Your task to perform on an android device: all mails in gmail Image 0: 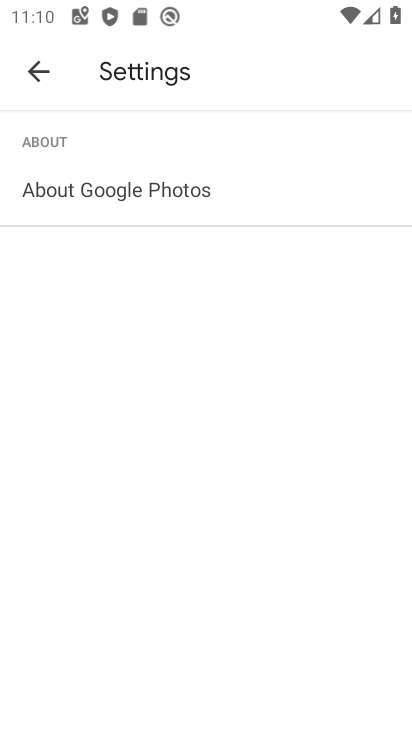
Step 0: press home button
Your task to perform on an android device: all mails in gmail Image 1: 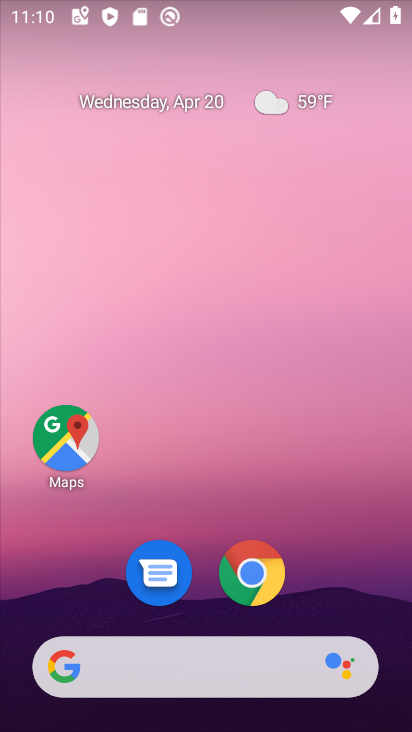
Step 1: drag from (398, 619) to (360, 9)
Your task to perform on an android device: all mails in gmail Image 2: 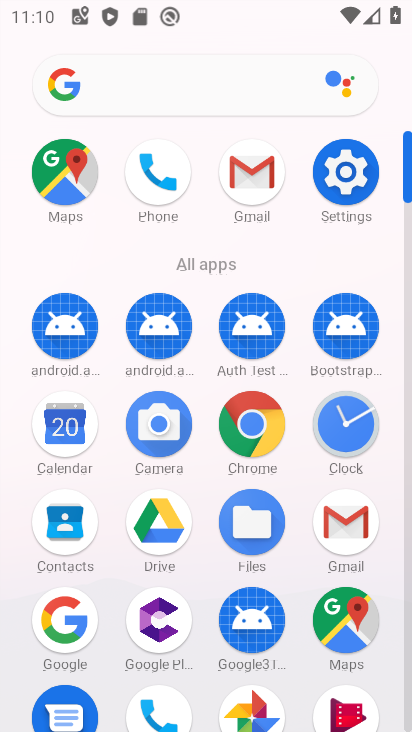
Step 2: click (240, 172)
Your task to perform on an android device: all mails in gmail Image 3: 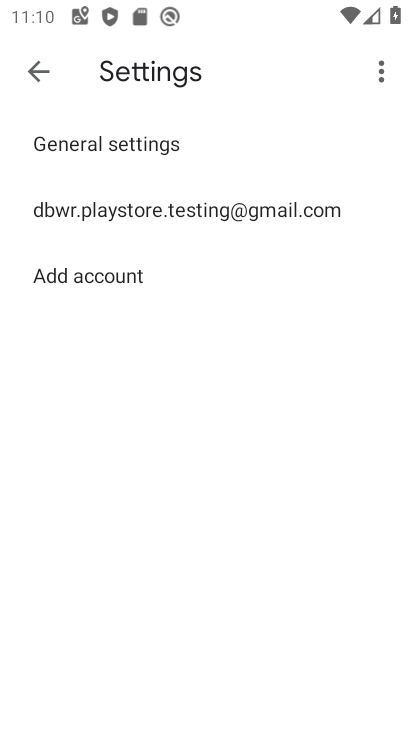
Step 3: click (42, 74)
Your task to perform on an android device: all mails in gmail Image 4: 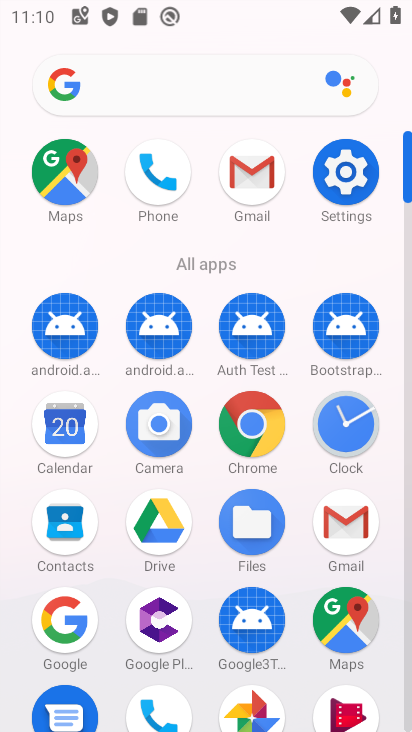
Step 4: click (251, 171)
Your task to perform on an android device: all mails in gmail Image 5: 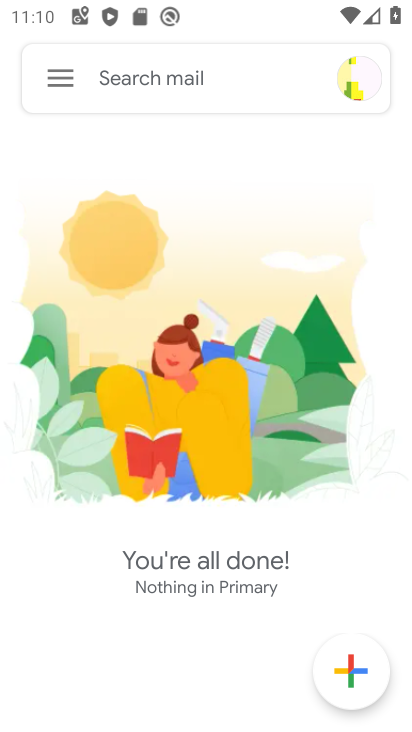
Step 5: click (58, 78)
Your task to perform on an android device: all mails in gmail Image 6: 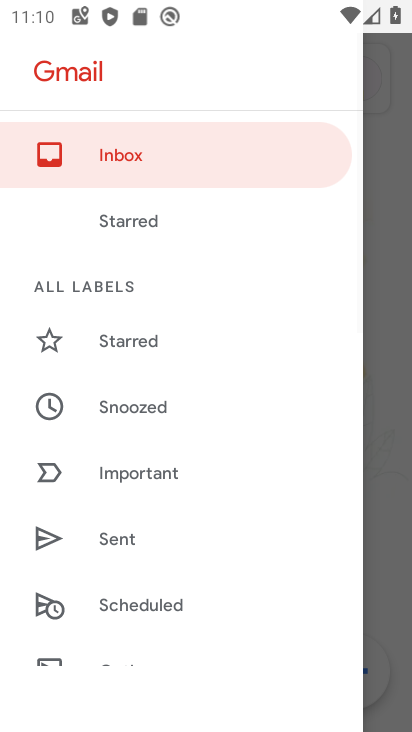
Step 6: drag from (224, 530) to (232, 254)
Your task to perform on an android device: all mails in gmail Image 7: 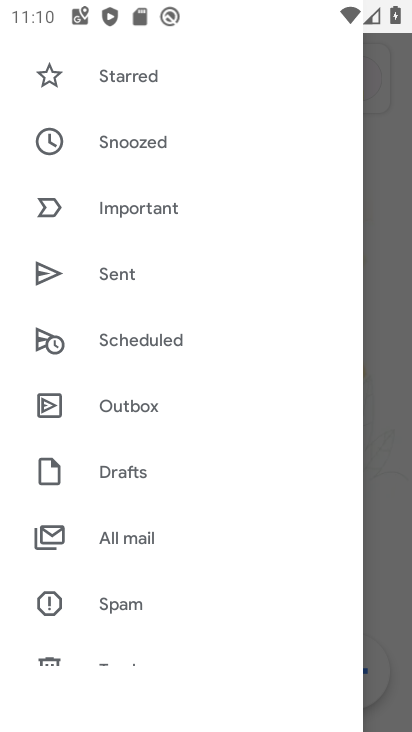
Step 7: click (131, 542)
Your task to perform on an android device: all mails in gmail Image 8: 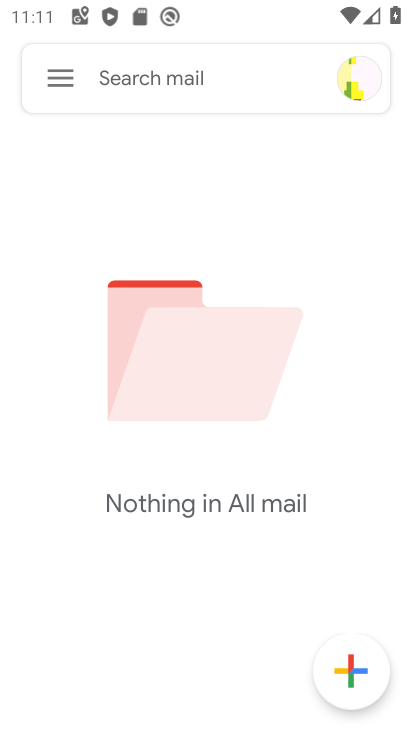
Step 8: task complete